Your task to perform on an android device: Open Yahoo.com Image 0: 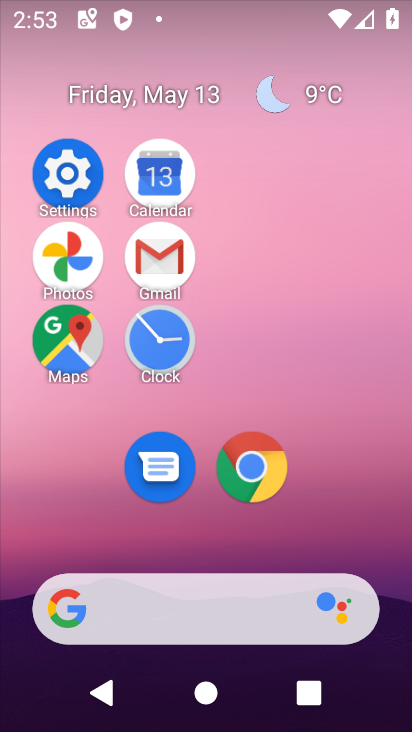
Step 0: click (238, 465)
Your task to perform on an android device: Open Yahoo.com Image 1: 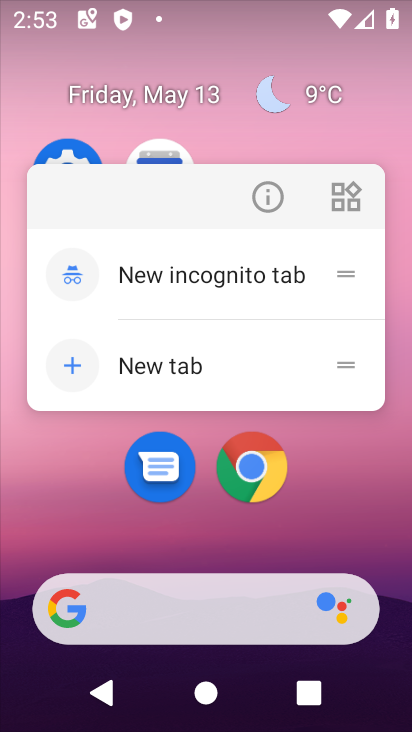
Step 1: click (238, 465)
Your task to perform on an android device: Open Yahoo.com Image 2: 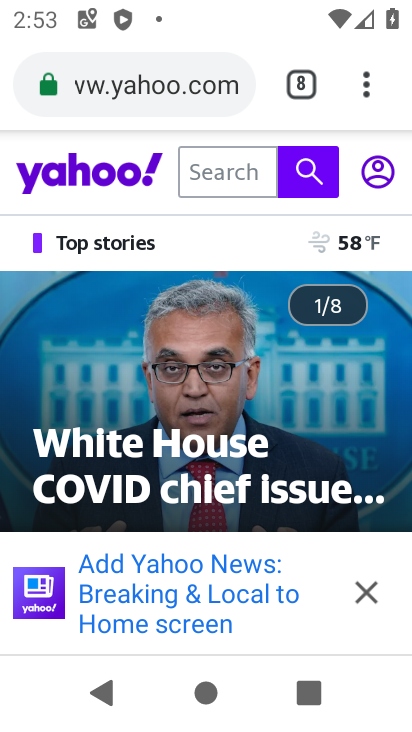
Step 2: task complete